Your task to perform on an android device: empty trash in google photos Image 0: 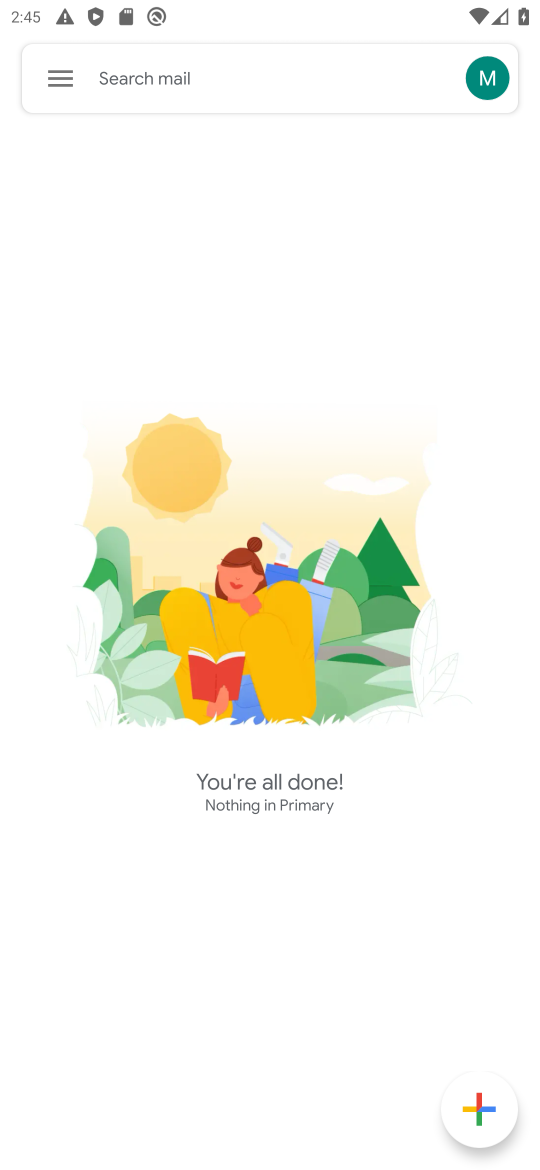
Step 0: click (46, 75)
Your task to perform on an android device: empty trash in google photos Image 1: 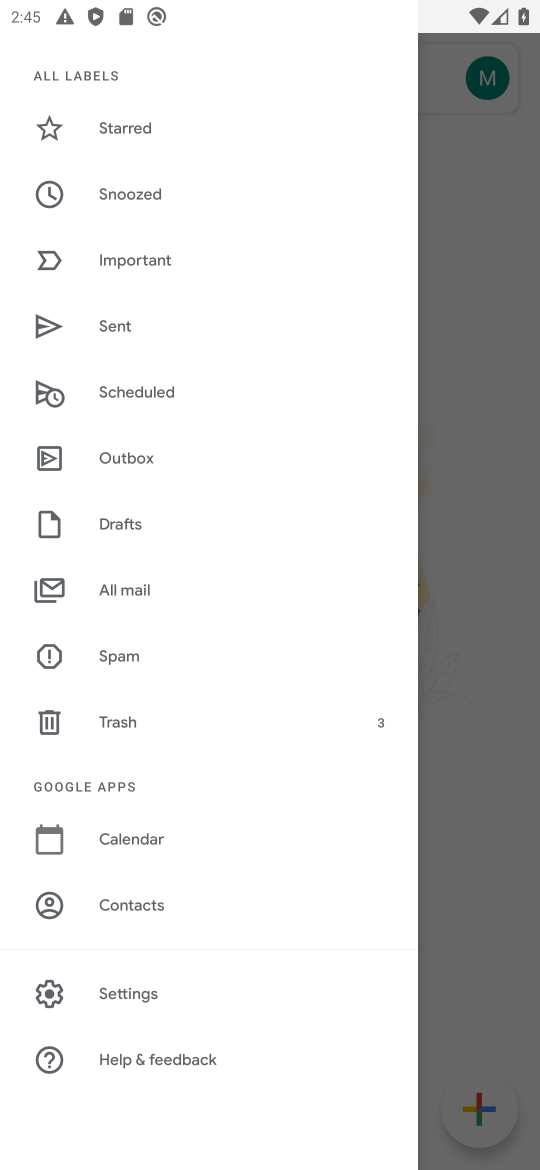
Step 1: press home button
Your task to perform on an android device: empty trash in google photos Image 2: 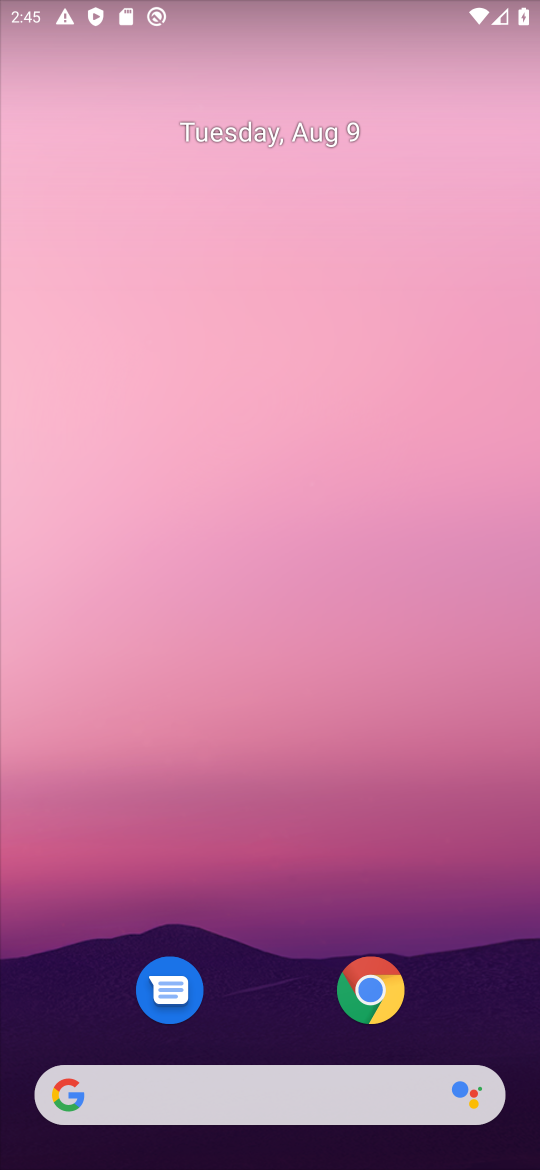
Step 2: drag from (300, 1129) to (261, 259)
Your task to perform on an android device: empty trash in google photos Image 3: 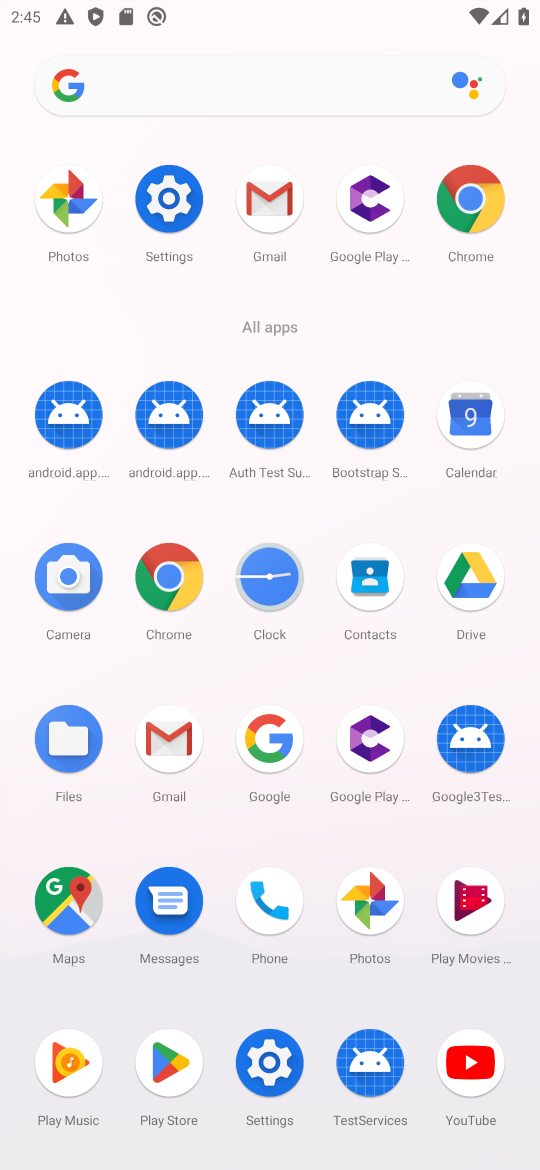
Step 3: click (376, 889)
Your task to perform on an android device: empty trash in google photos Image 4: 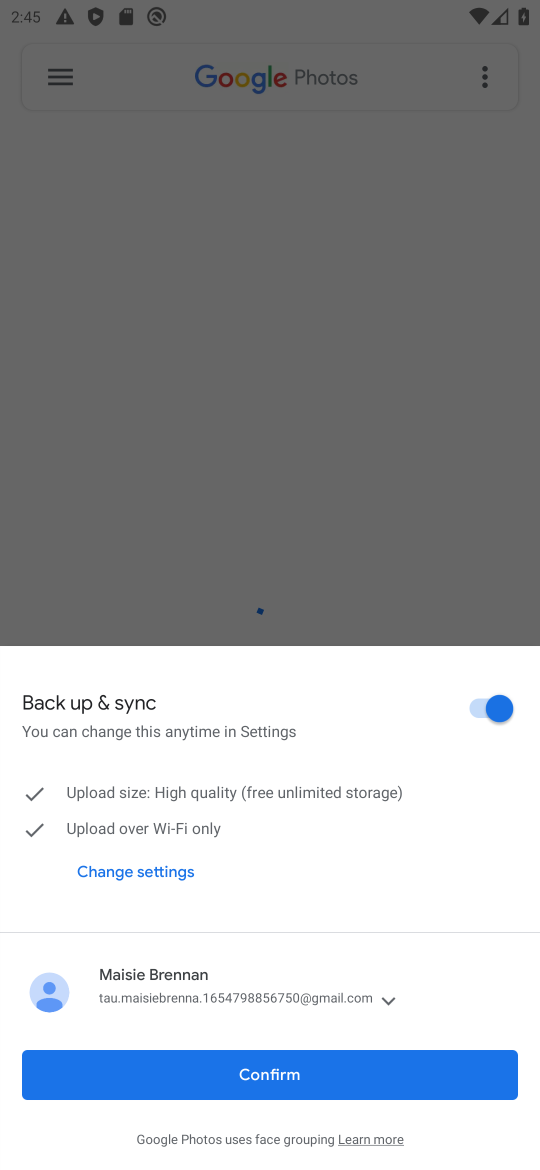
Step 4: click (238, 1087)
Your task to perform on an android device: empty trash in google photos Image 5: 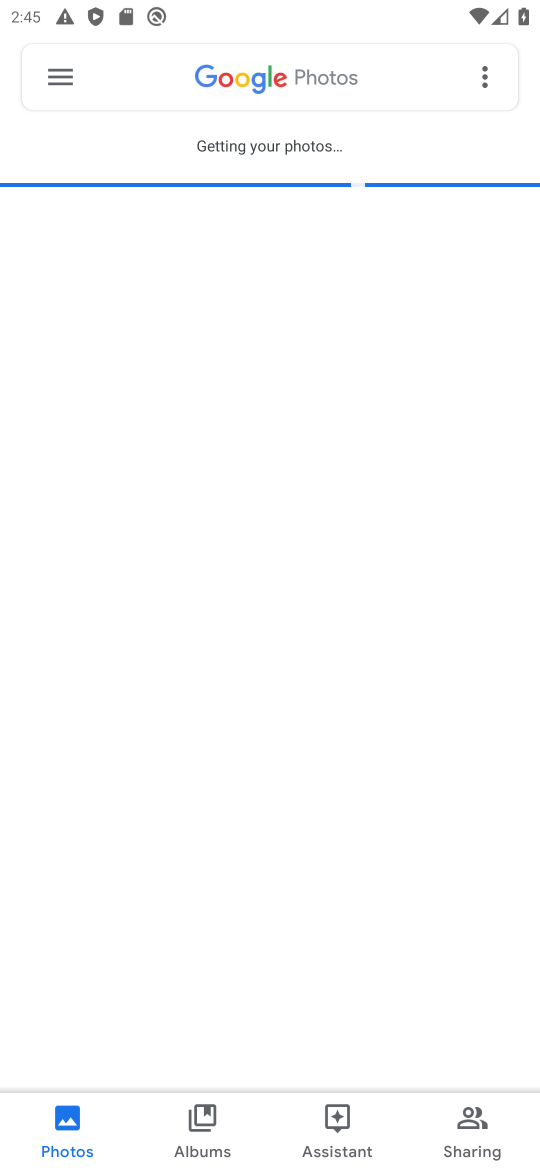
Step 5: click (355, 981)
Your task to perform on an android device: empty trash in google photos Image 6: 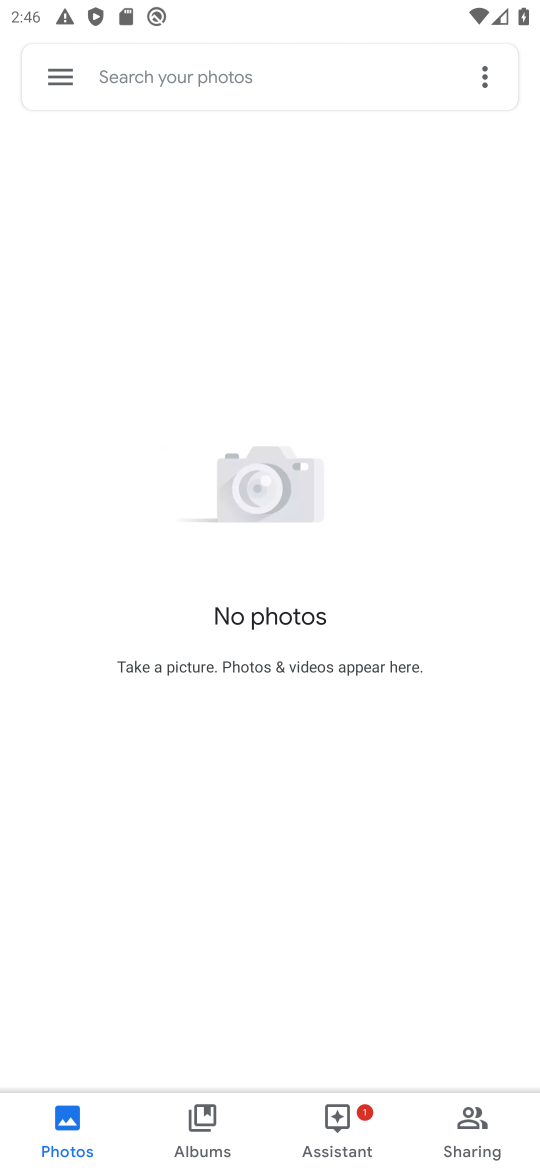
Step 6: click (67, 56)
Your task to perform on an android device: empty trash in google photos Image 7: 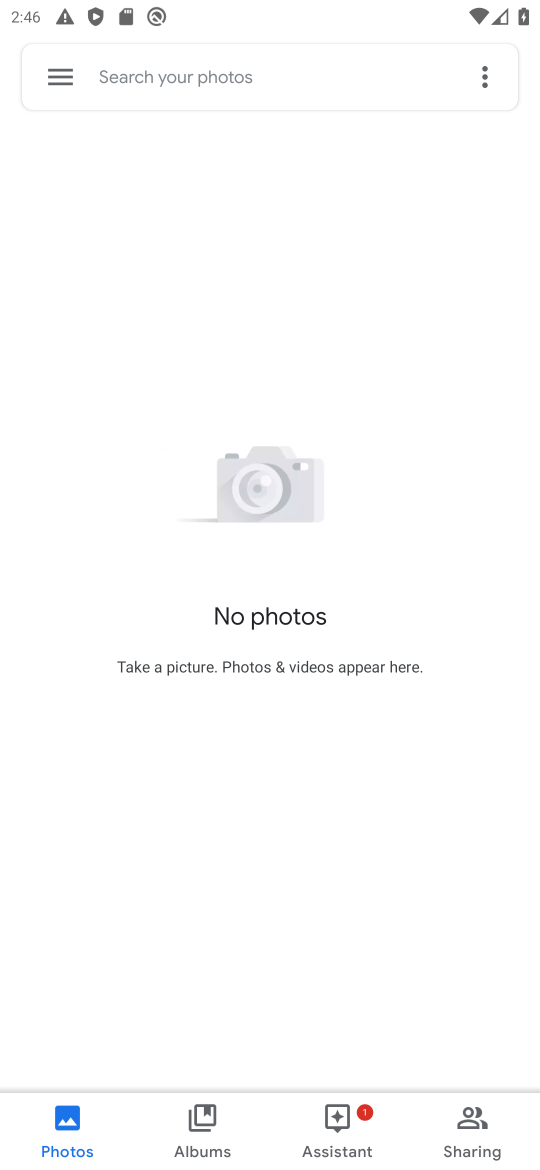
Step 7: click (67, 56)
Your task to perform on an android device: empty trash in google photos Image 8: 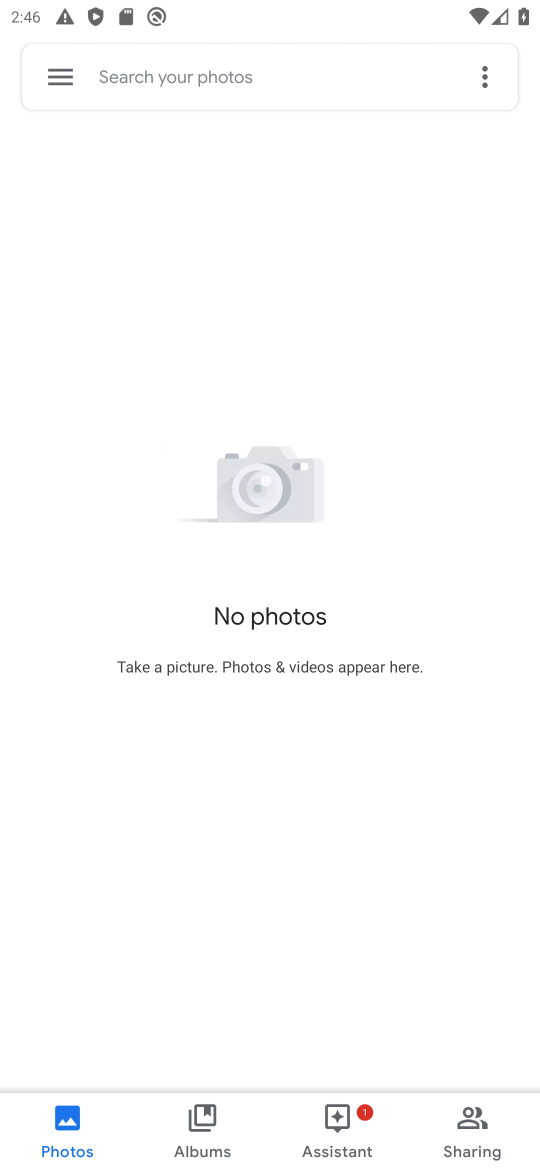
Step 8: click (61, 65)
Your task to perform on an android device: empty trash in google photos Image 9: 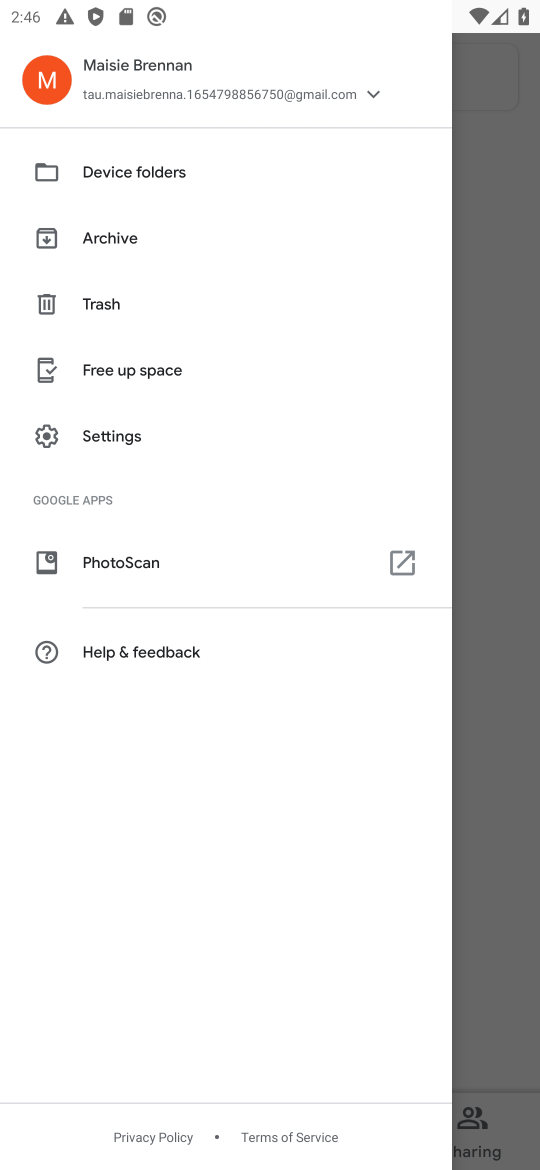
Step 9: click (89, 306)
Your task to perform on an android device: empty trash in google photos Image 10: 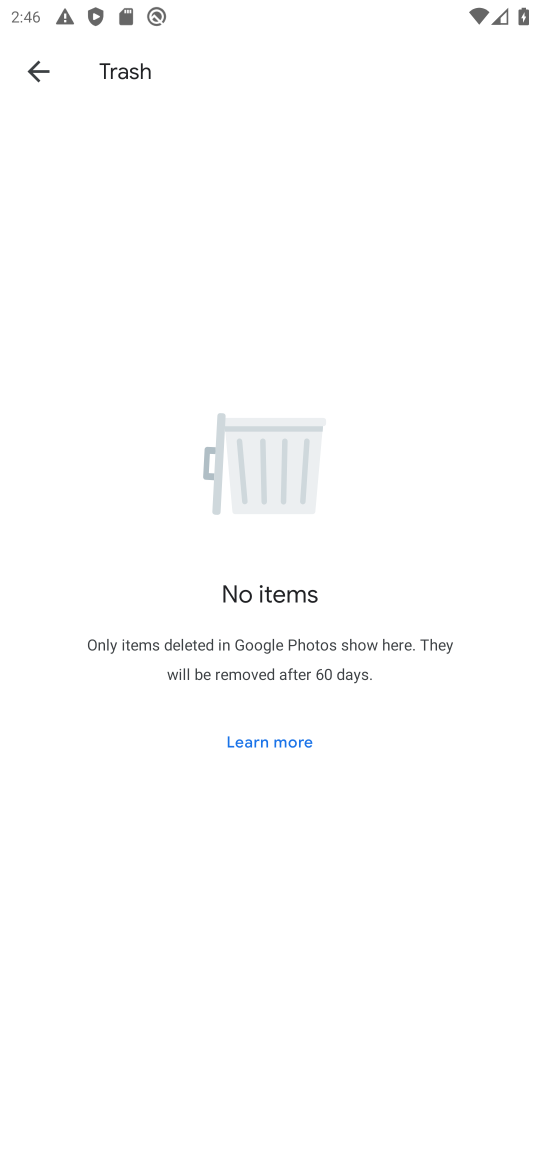
Step 10: task complete